Your task to perform on an android device: change the clock style Image 0: 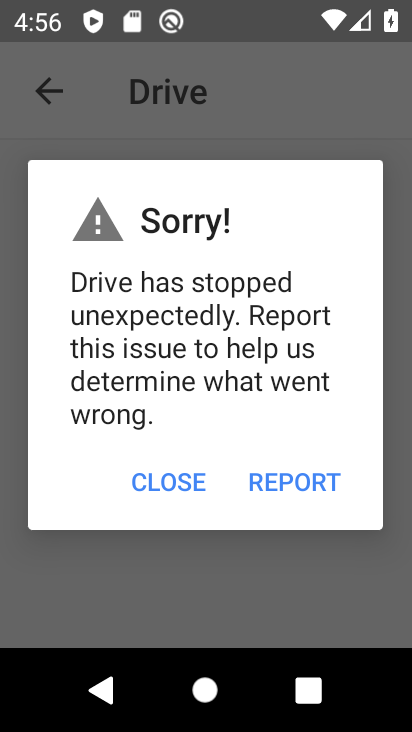
Step 0: press home button
Your task to perform on an android device: change the clock style Image 1: 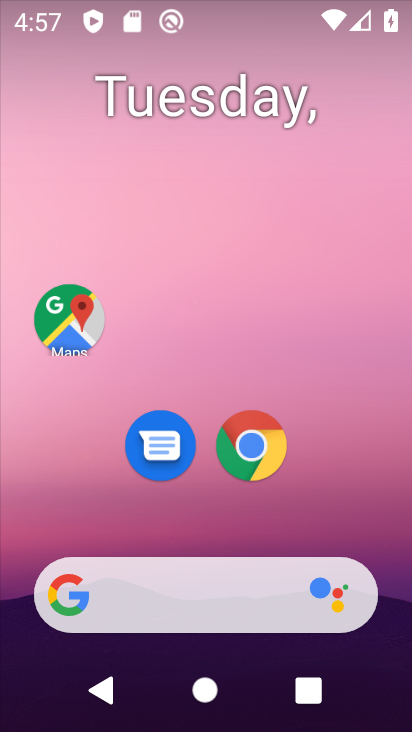
Step 1: drag from (315, 487) to (385, 85)
Your task to perform on an android device: change the clock style Image 2: 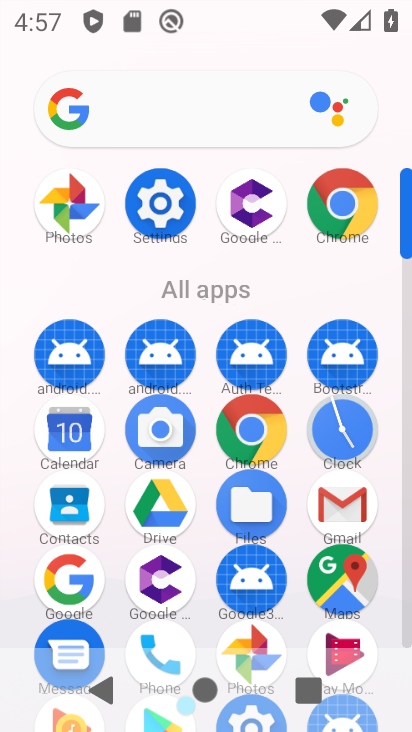
Step 2: click (338, 432)
Your task to perform on an android device: change the clock style Image 3: 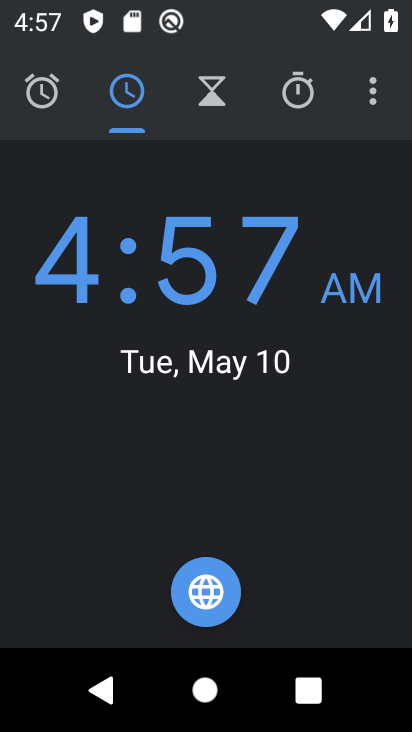
Step 3: click (373, 100)
Your task to perform on an android device: change the clock style Image 4: 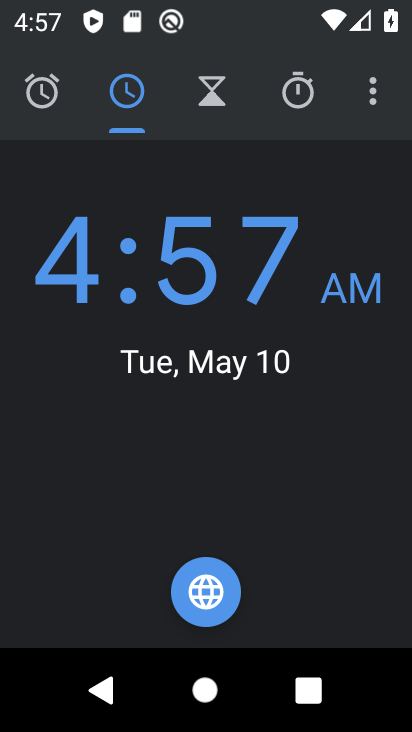
Step 4: click (371, 97)
Your task to perform on an android device: change the clock style Image 5: 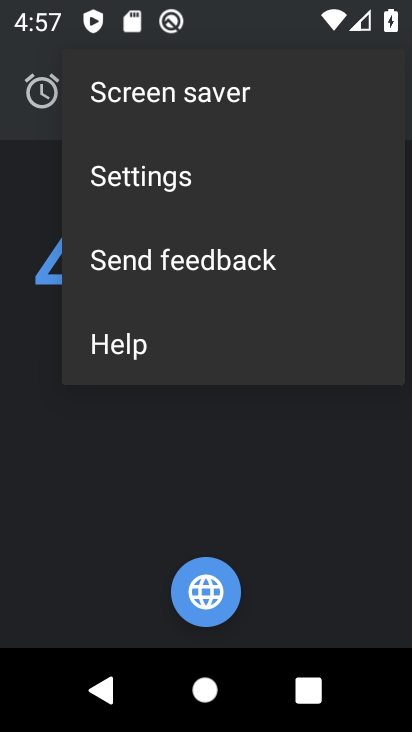
Step 5: click (155, 168)
Your task to perform on an android device: change the clock style Image 6: 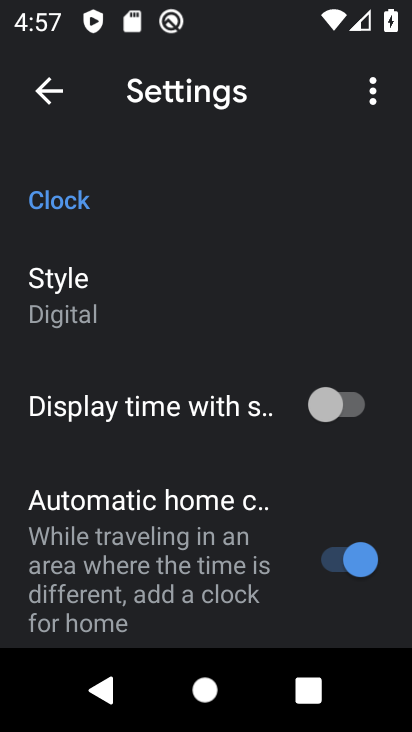
Step 6: click (43, 306)
Your task to perform on an android device: change the clock style Image 7: 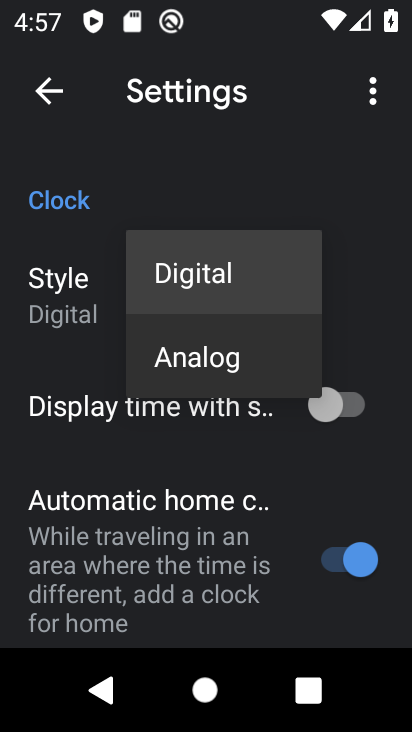
Step 7: click (207, 367)
Your task to perform on an android device: change the clock style Image 8: 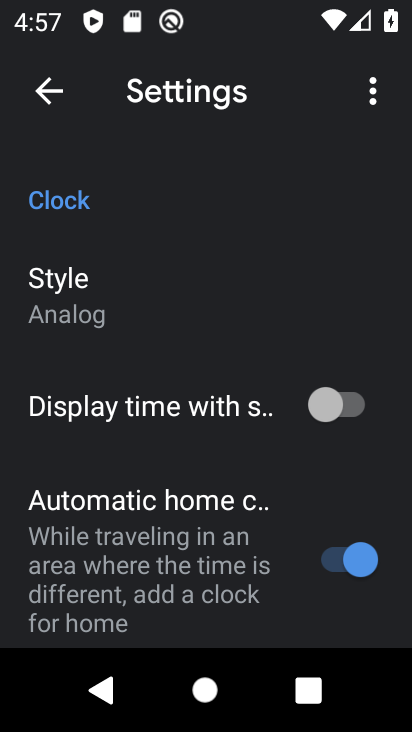
Step 8: task complete